Your task to perform on an android device: change the clock style Image 0: 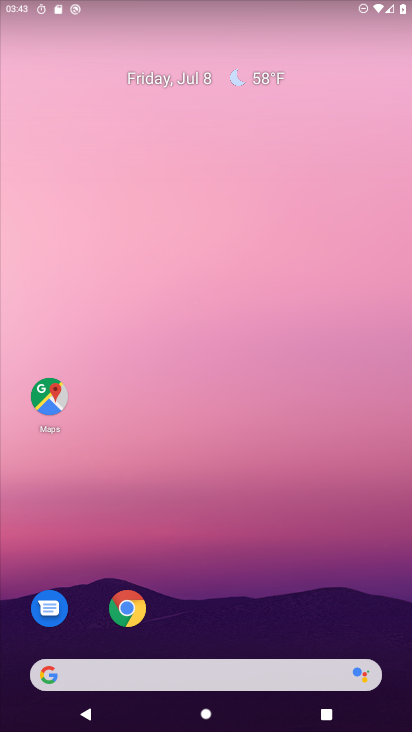
Step 0: drag from (239, 722) to (208, 102)
Your task to perform on an android device: change the clock style Image 1: 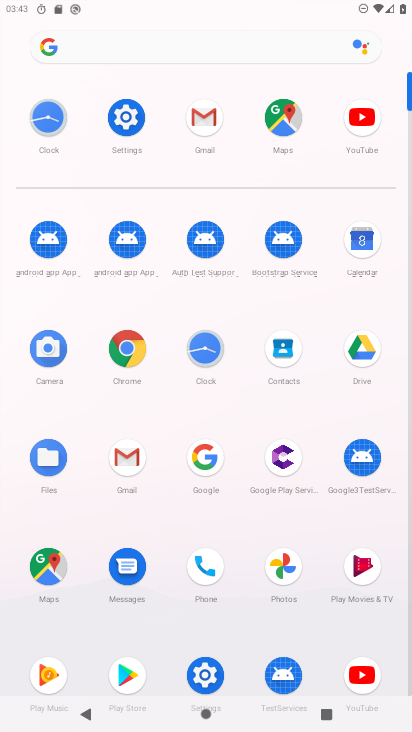
Step 1: click (207, 346)
Your task to perform on an android device: change the clock style Image 2: 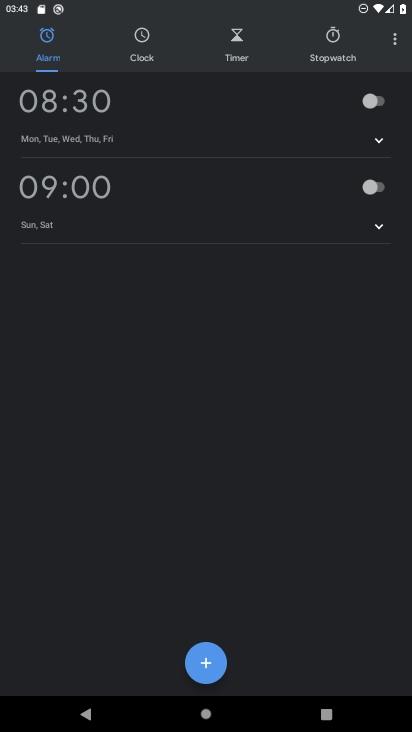
Step 2: click (396, 41)
Your task to perform on an android device: change the clock style Image 3: 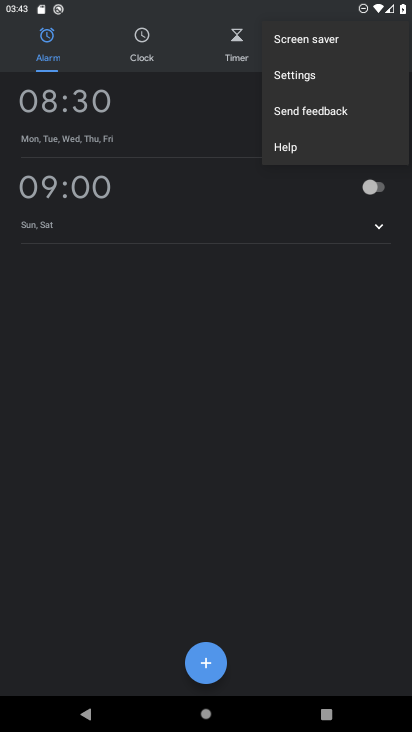
Step 3: click (305, 72)
Your task to perform on an android device: change the clock style Image 4: 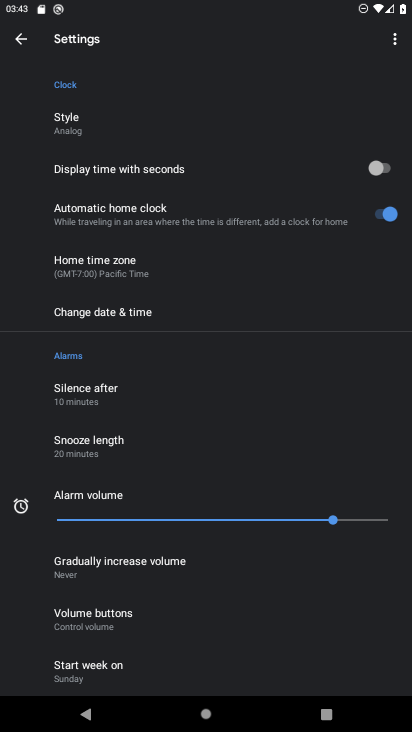
Step 4: click (64, 123)
Your task to perform on an android device: change the clock style Image 5: 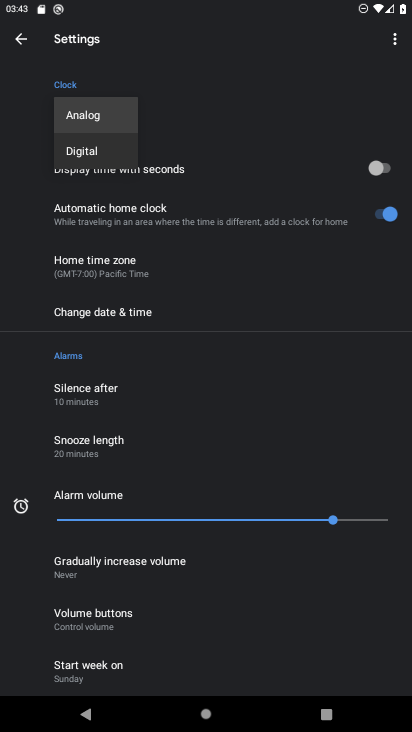
Step 5: click (86, 144)
Your task to perform on an android device: change the clock style Image 6: 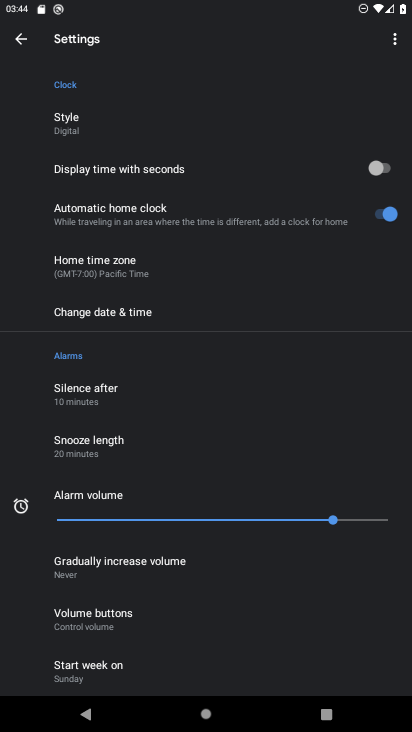
Step 6: task complete